Your task to perform on an android device: Open the stopwatch Image 0: 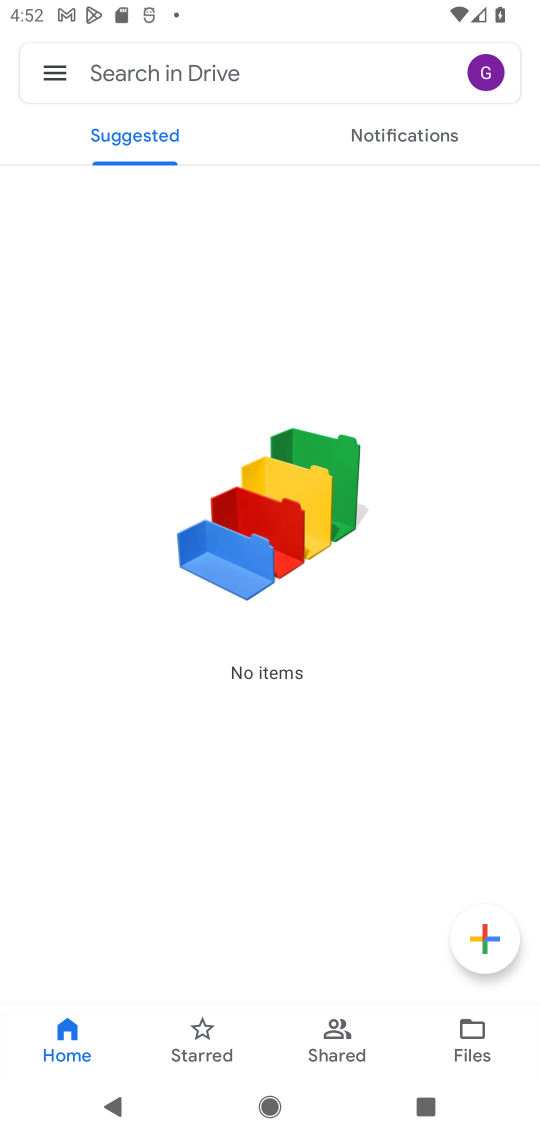
Step 0: press home button
Your task to perform on an android device: Open the stopwatch Image 1: 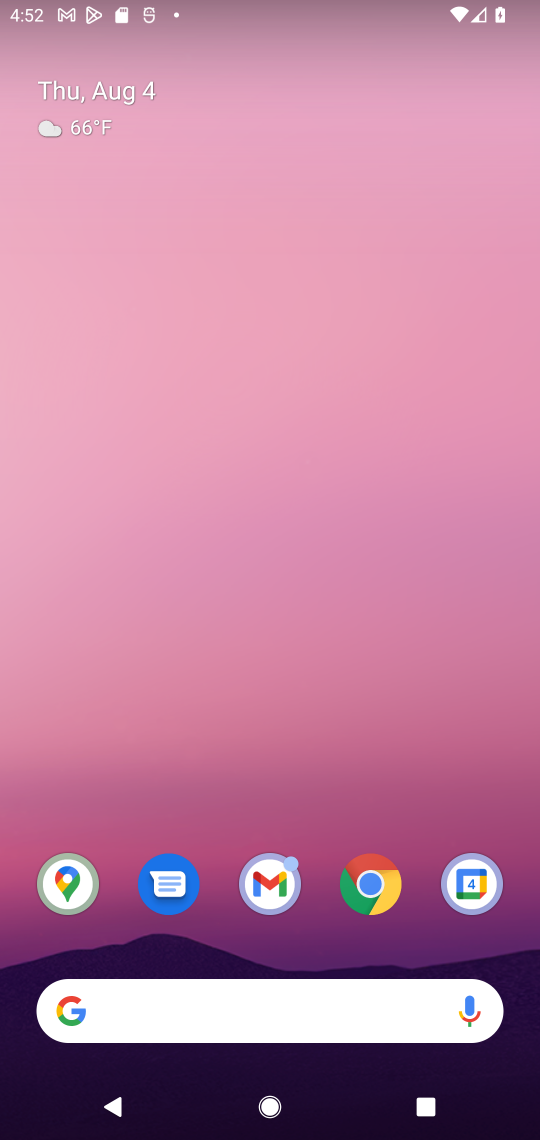
Step 1: drag from (233, 962) to (277, 254)
Your task to perform on an android device: Open the stopwatch Image 2: 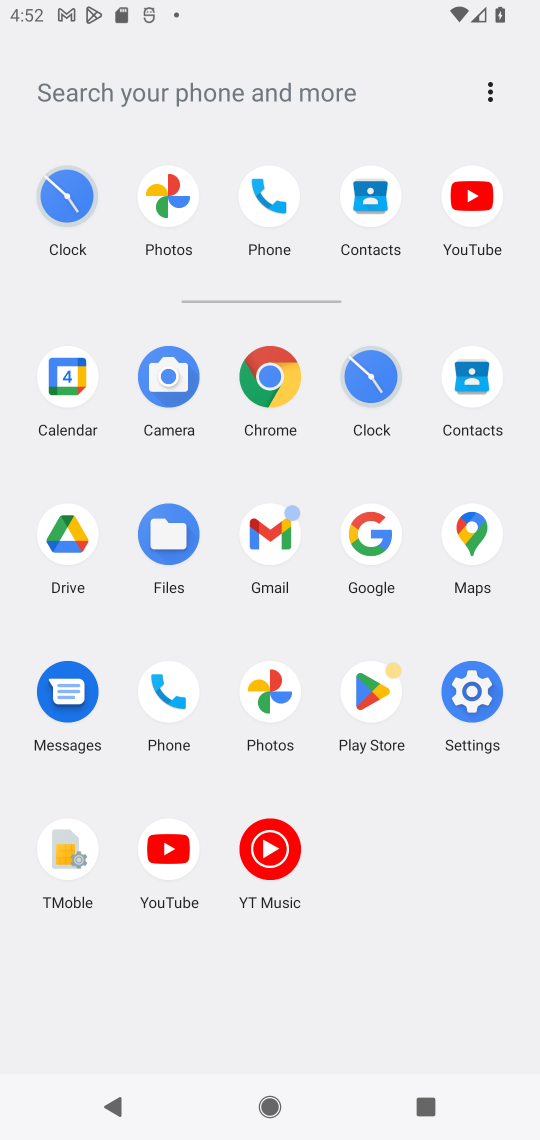
Step 2: click (66, 215)
Your task to perform on an android device: Open the stopwatch Image 3: 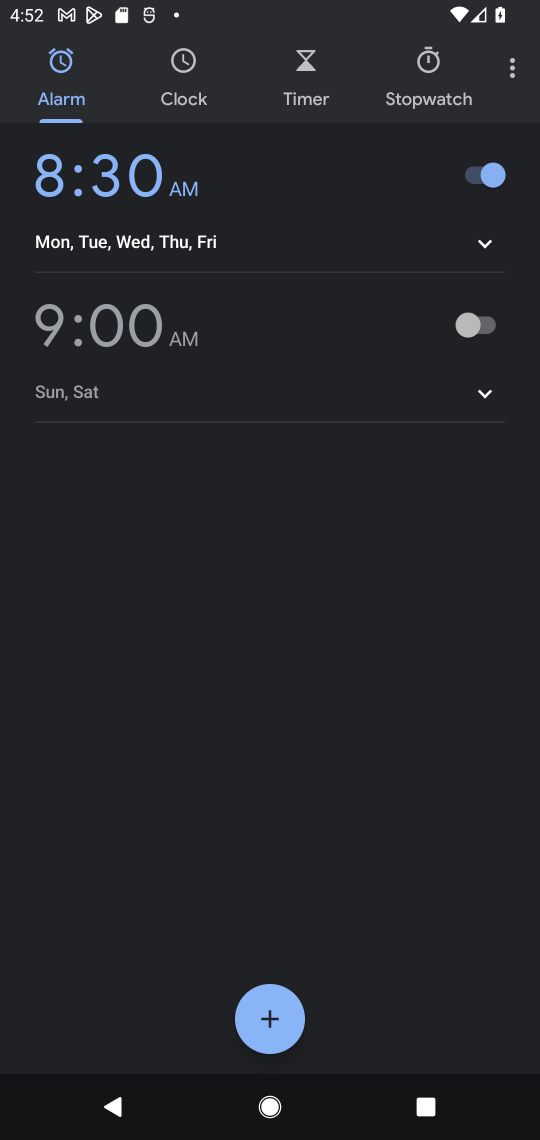
Step 3: click (421, 109)
Your task to perform on an android device: Open the stopwatch Image 4: 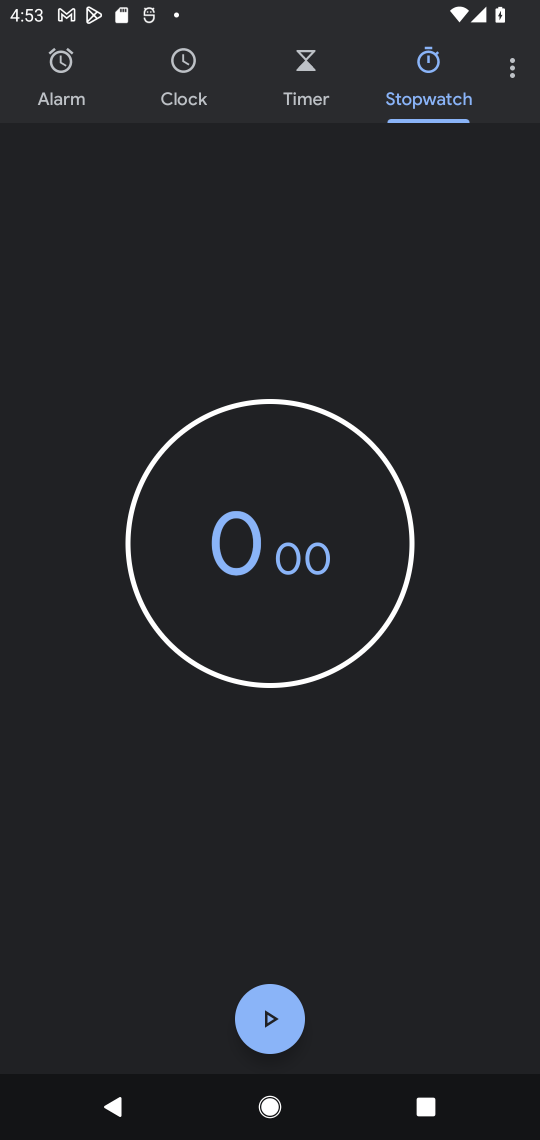
Step 4: task complete